Your task to perform on an android device: visit the assistant section in the google photos Image 0: 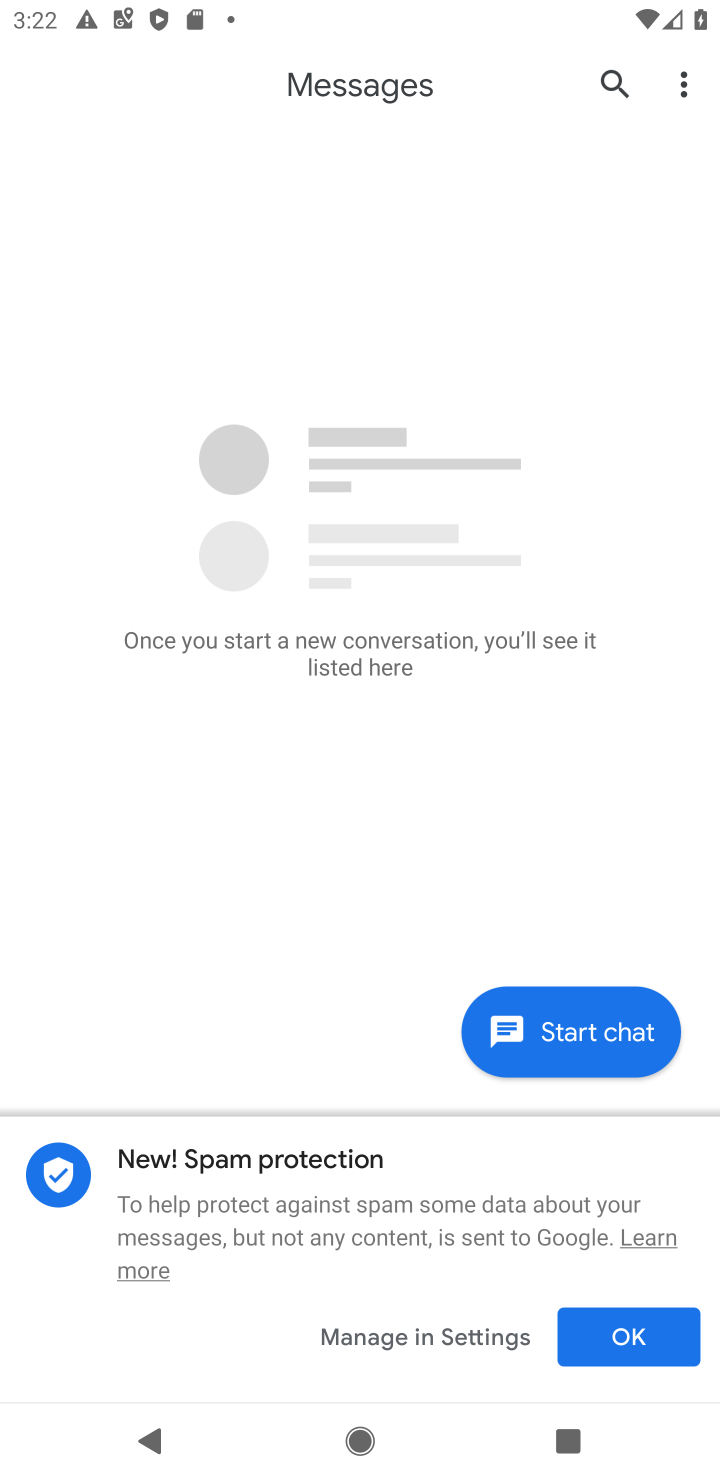
Step 0: press home button
Your task to perform on an android device: visit the assistant section in the google photos Image 1: 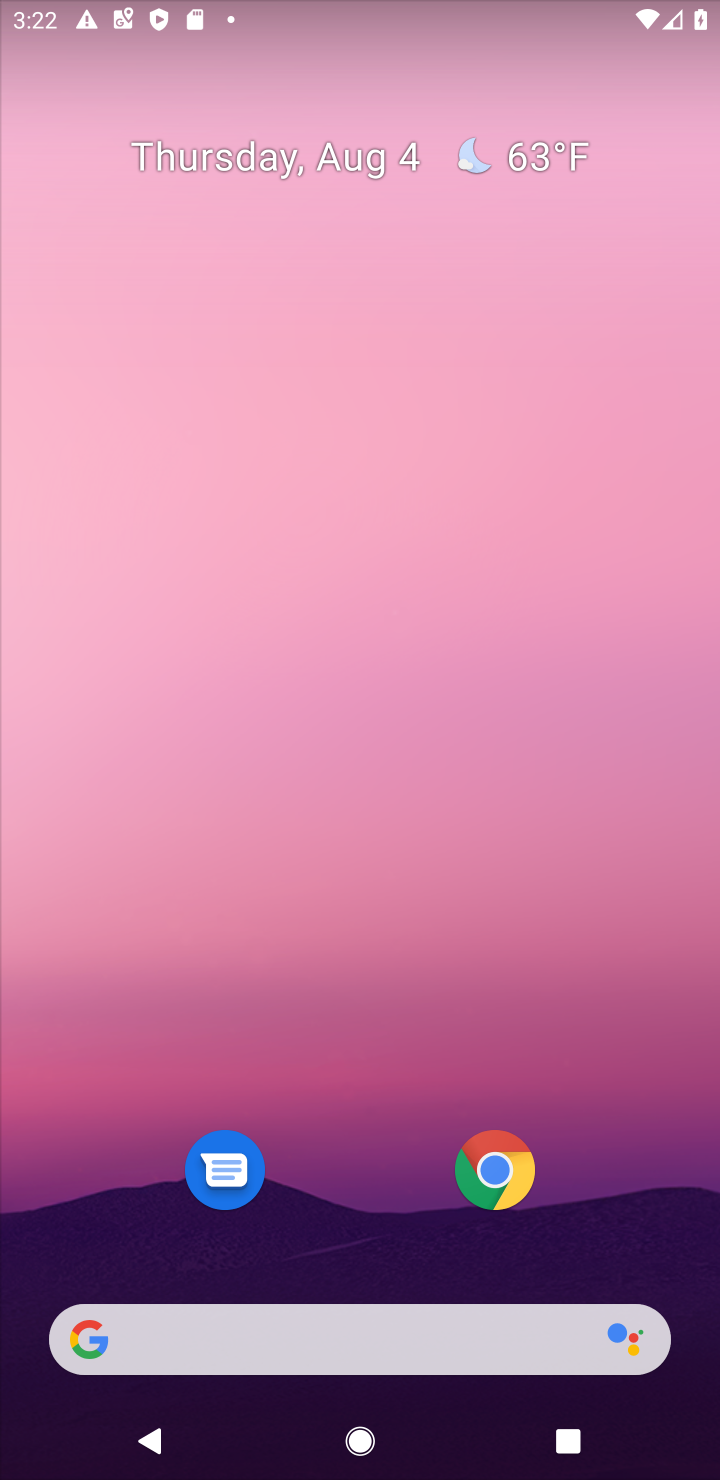
Step 1: drag from (657, 1241) to (627, 262)
Your task to perform on an android device: visit the assistant section in the google photos Image 2: 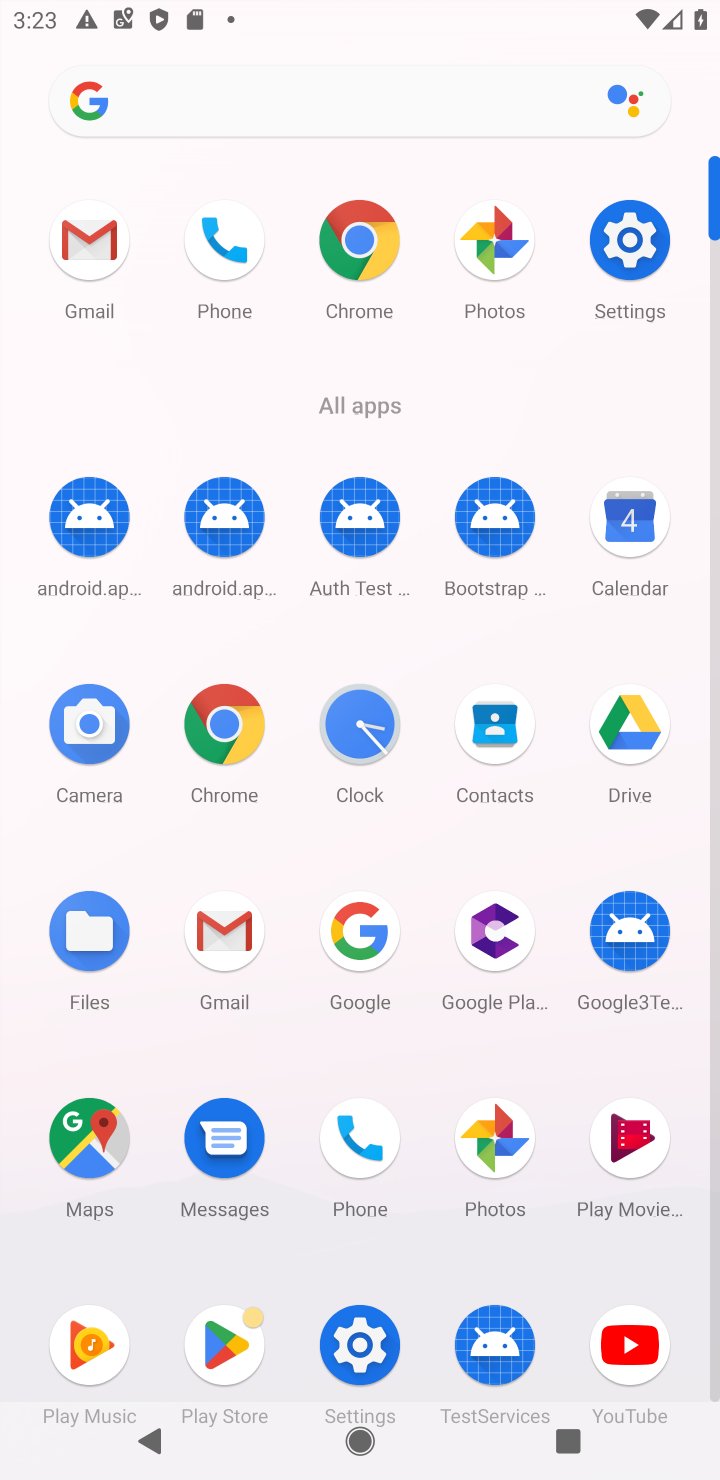
Step 2: click (489, 1137)
Your task to perform on an android device: visit the assistant section in the google photos Image 3: 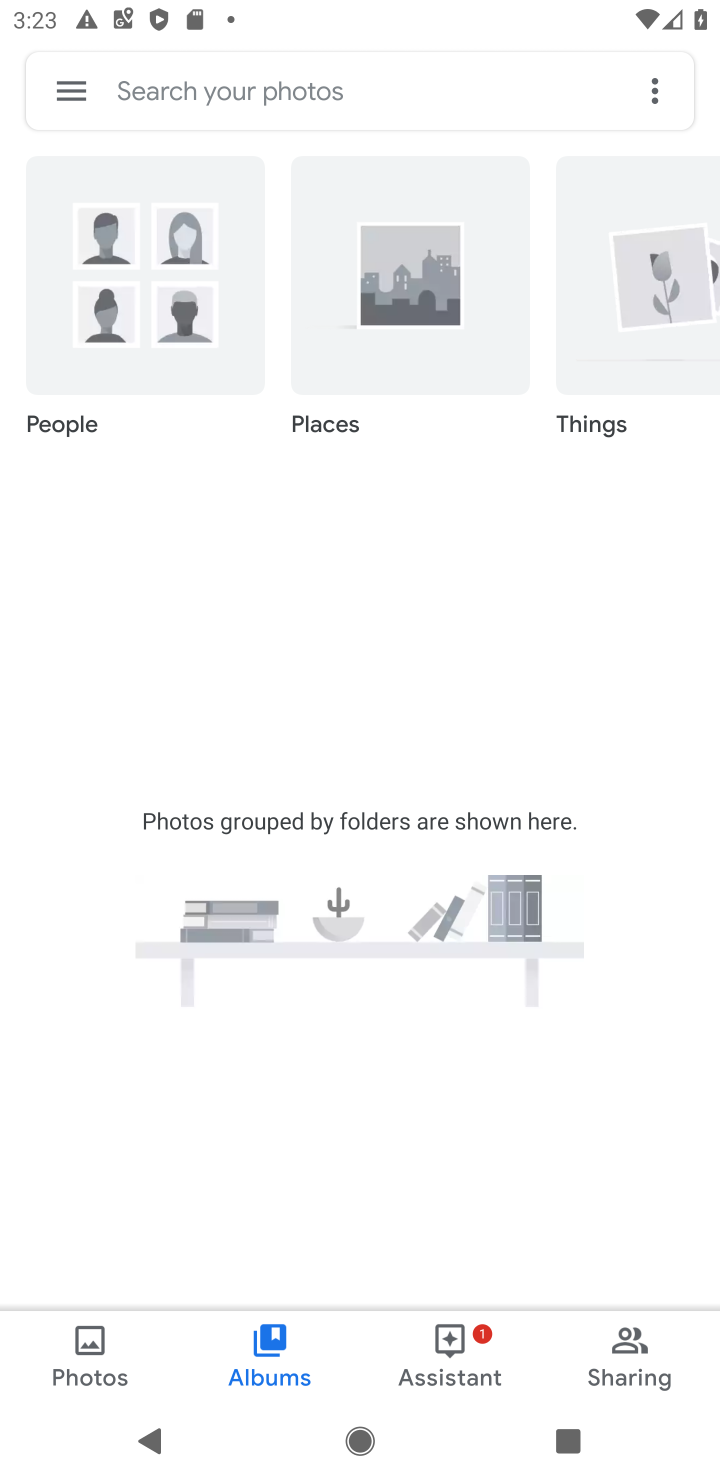
Step 3: click (435, 1354)
Your task to perform on an android device: visit the assistant section in the google photos Image 4: 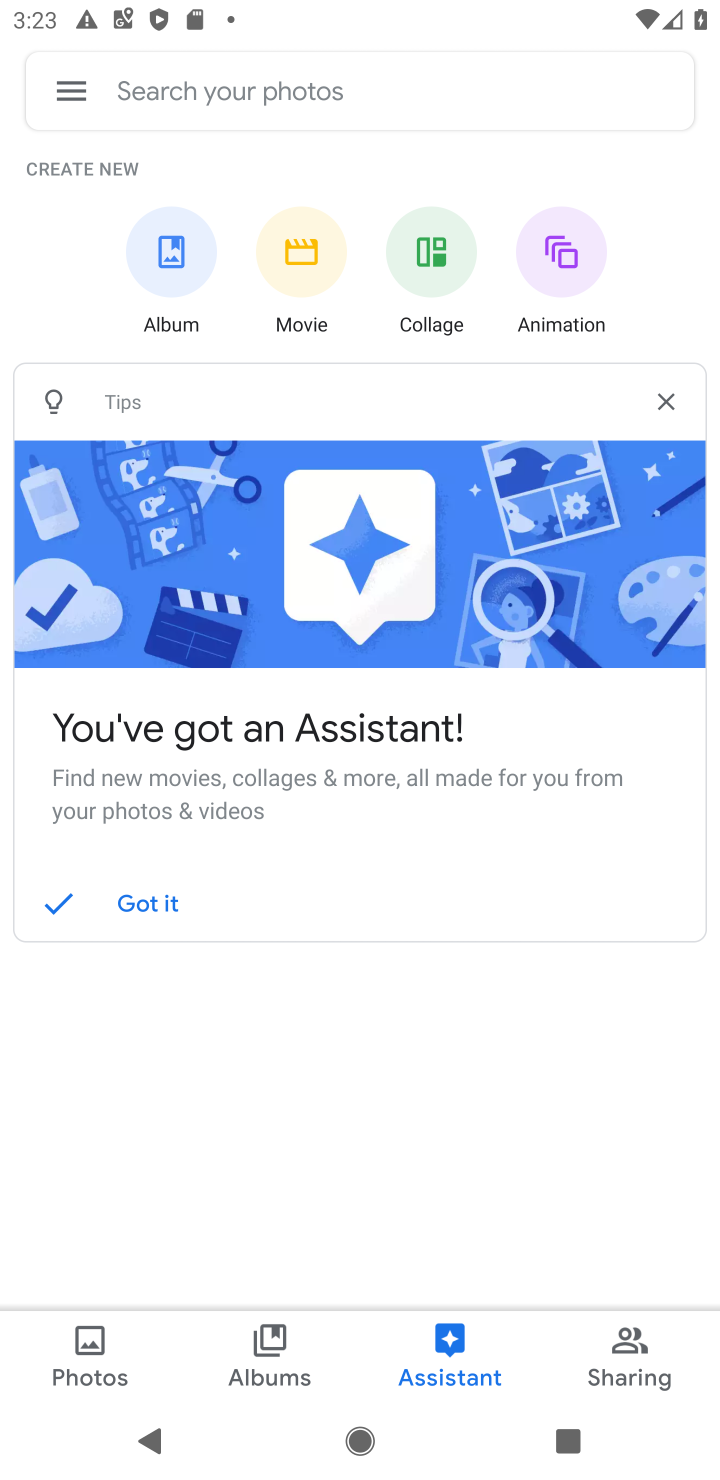
Step 4: task complete